Your task to perform on an android device: Open Android settings Image 0: 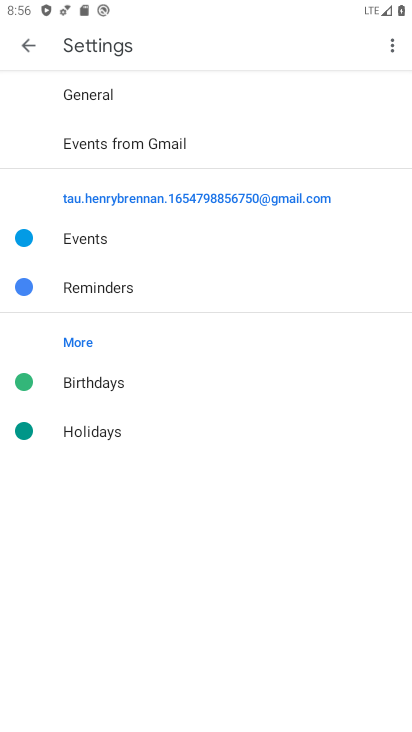
Step 0: press home button
Your task to perform on an android device: Open Android settings Image 1: 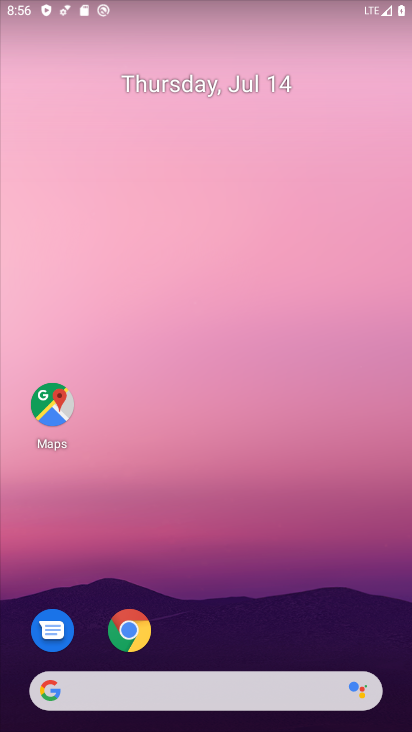
Step 1: drag from (226, 676) to (17, 119)
Your task to perform on an android device: Open Android settings Image 2: 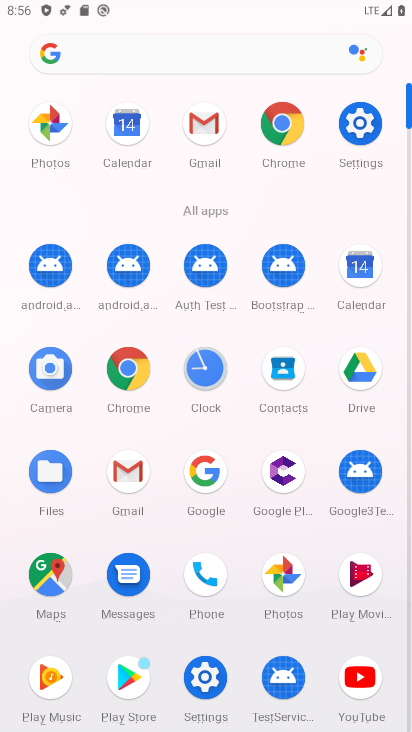
Step 2: click (366, 123)
Your task to perform on an android device: Open Android settings Image 3: 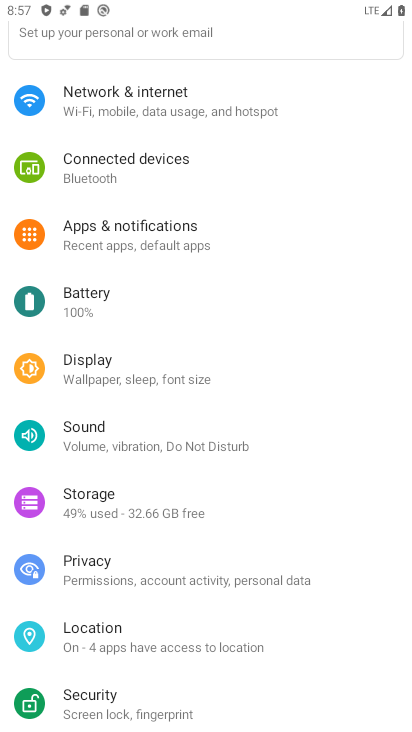
Step 3: click (197, 101)
Your task to perform on an android device: Open Android settings Image 4: 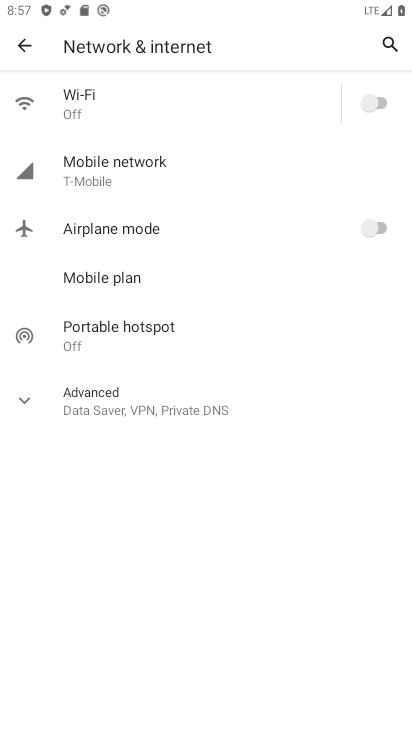
Step 4: click (159, 177)
Your task to perform on an android device: Open Android settings Image 5: 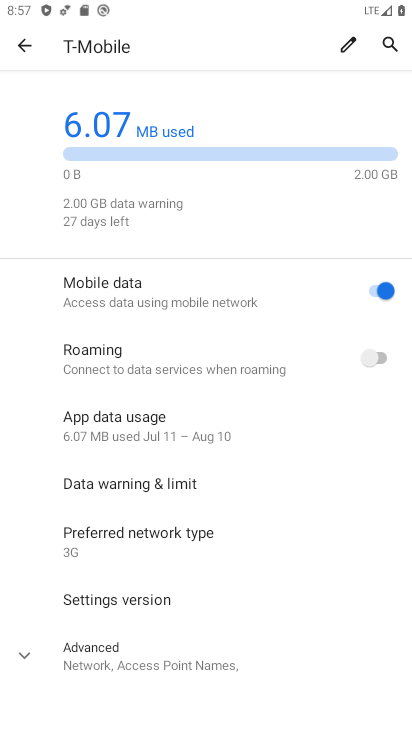
Step 5: task complete